Your task to perform on an android device: Clear the cart on target.com. Search for bose quietcomfort 35 on target.com, select the first entry, and add it to the cart. Image 0: 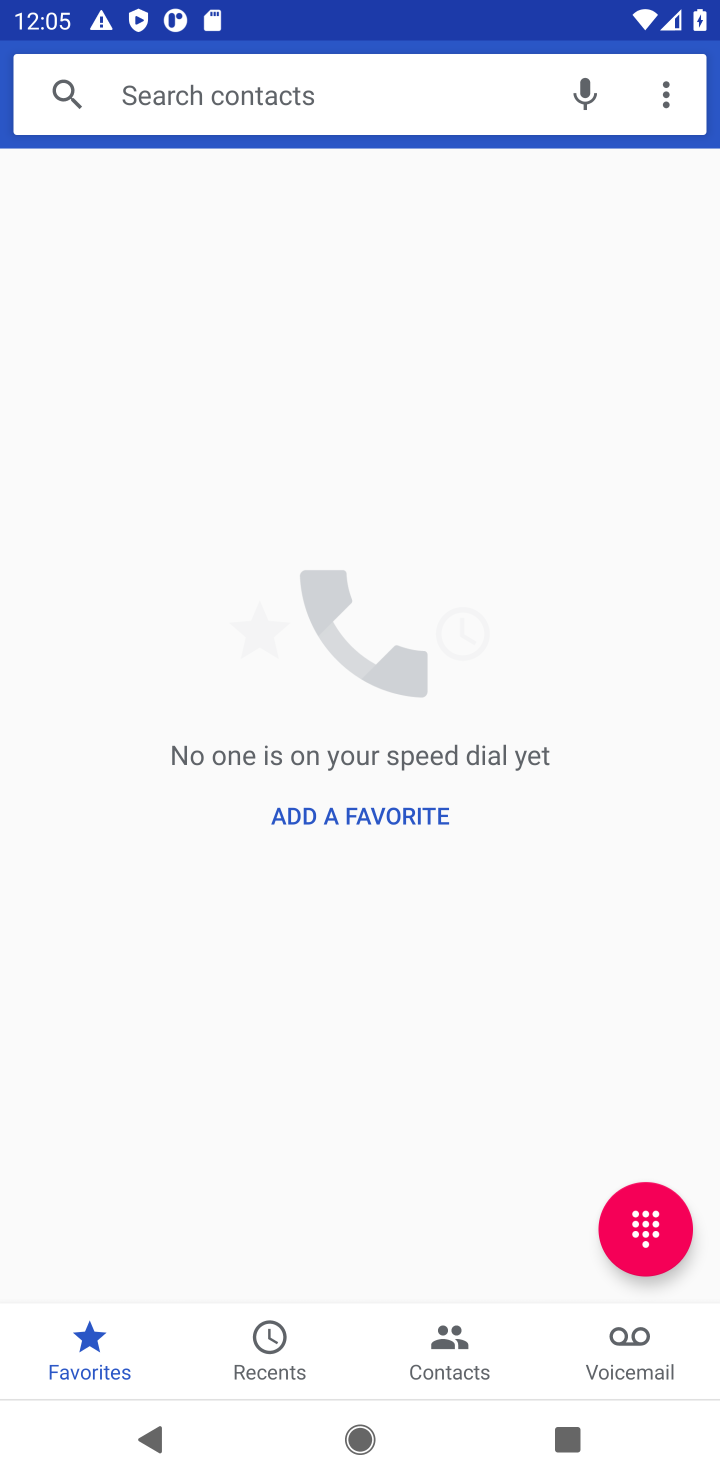
Step 0: press home button
Your task to perform on an android device: Clear the cart on target.com. Search for bose quietcomfort 35 on target.com, select the first entry, and add it to the cart. Image 1: 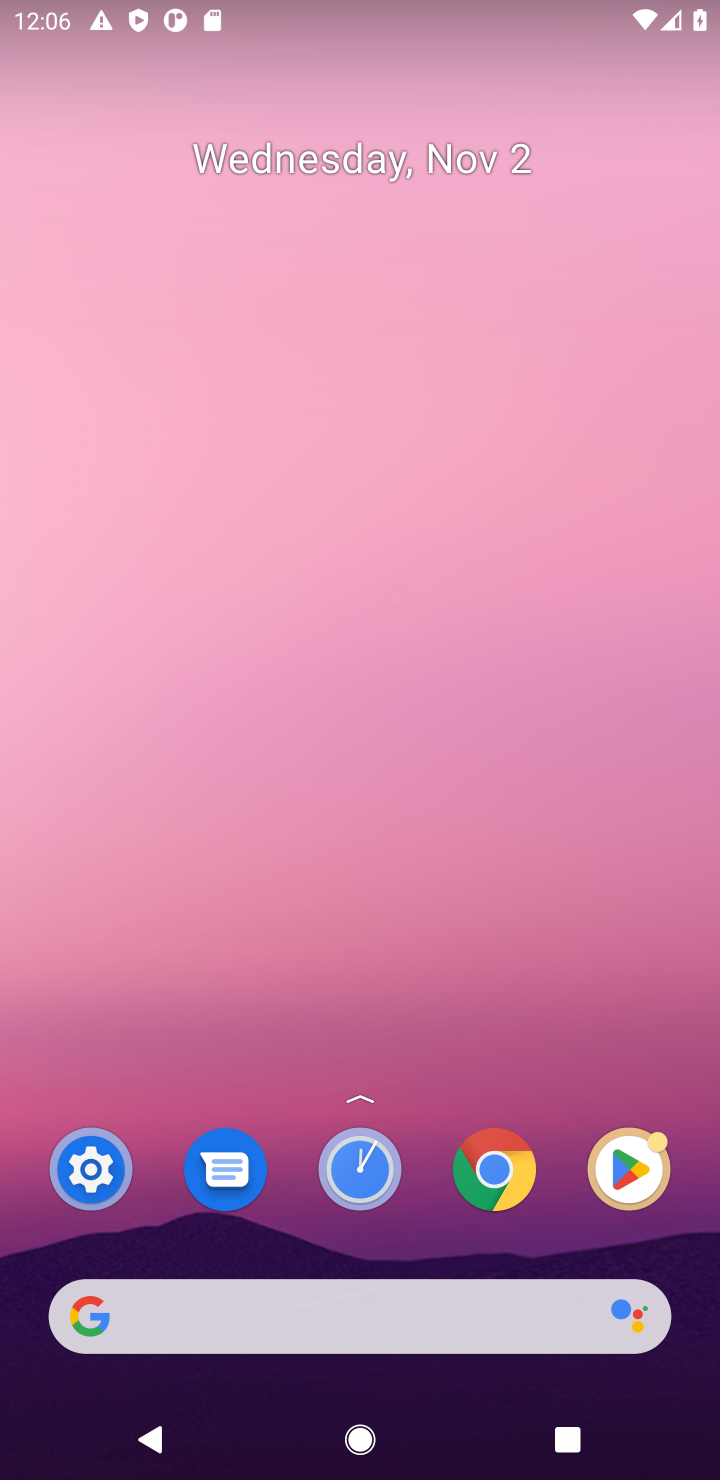
Step 1: click (499, 1177)
Your task to perform on an android device: Clear the cart on target.com. Search for bose quietcomfort 35 on target.com, select the first entry, and add it to the cart. Image 2: 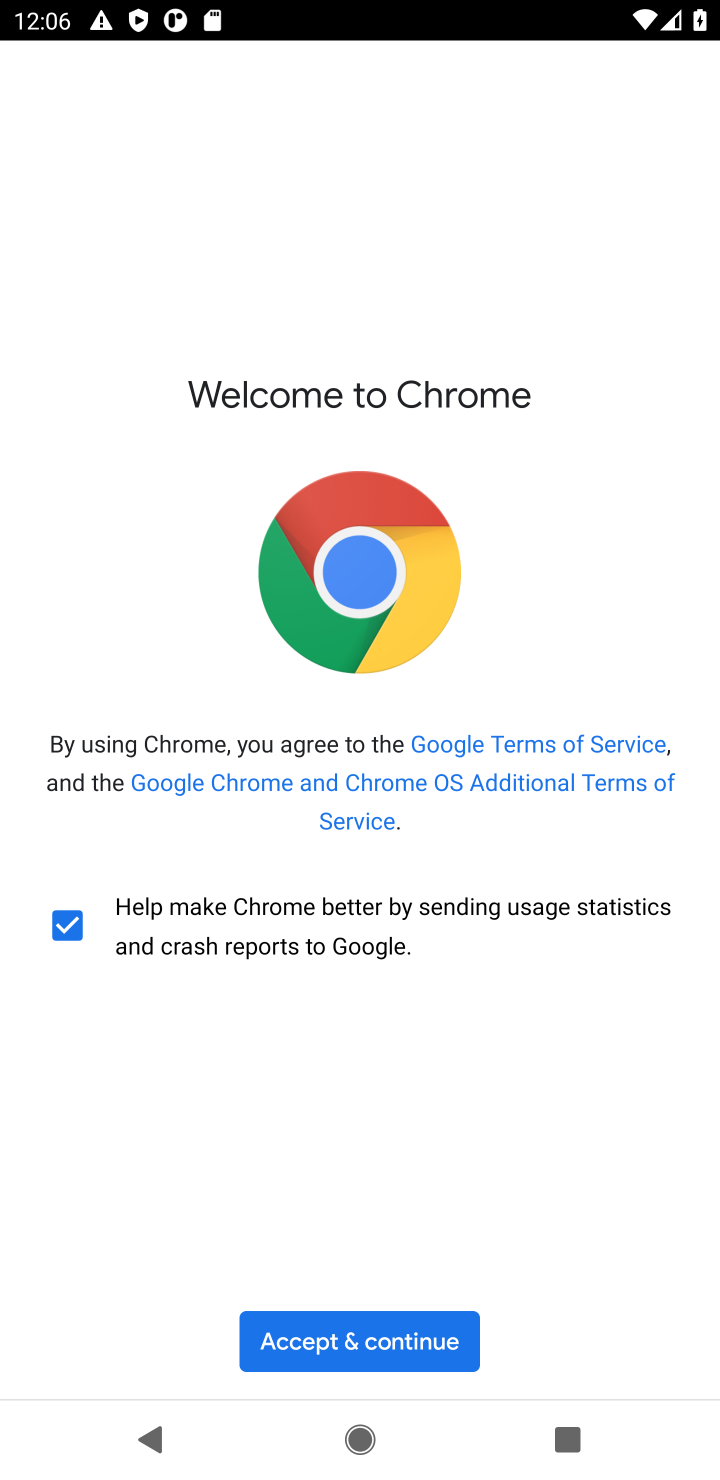
Step 2: click (436, 1365)
Your task to perform on an android device: Clear the cart on target.com. Search for bose quietcomfort 35 on target.com, select the first entry, and add it to the cart. Image 3: 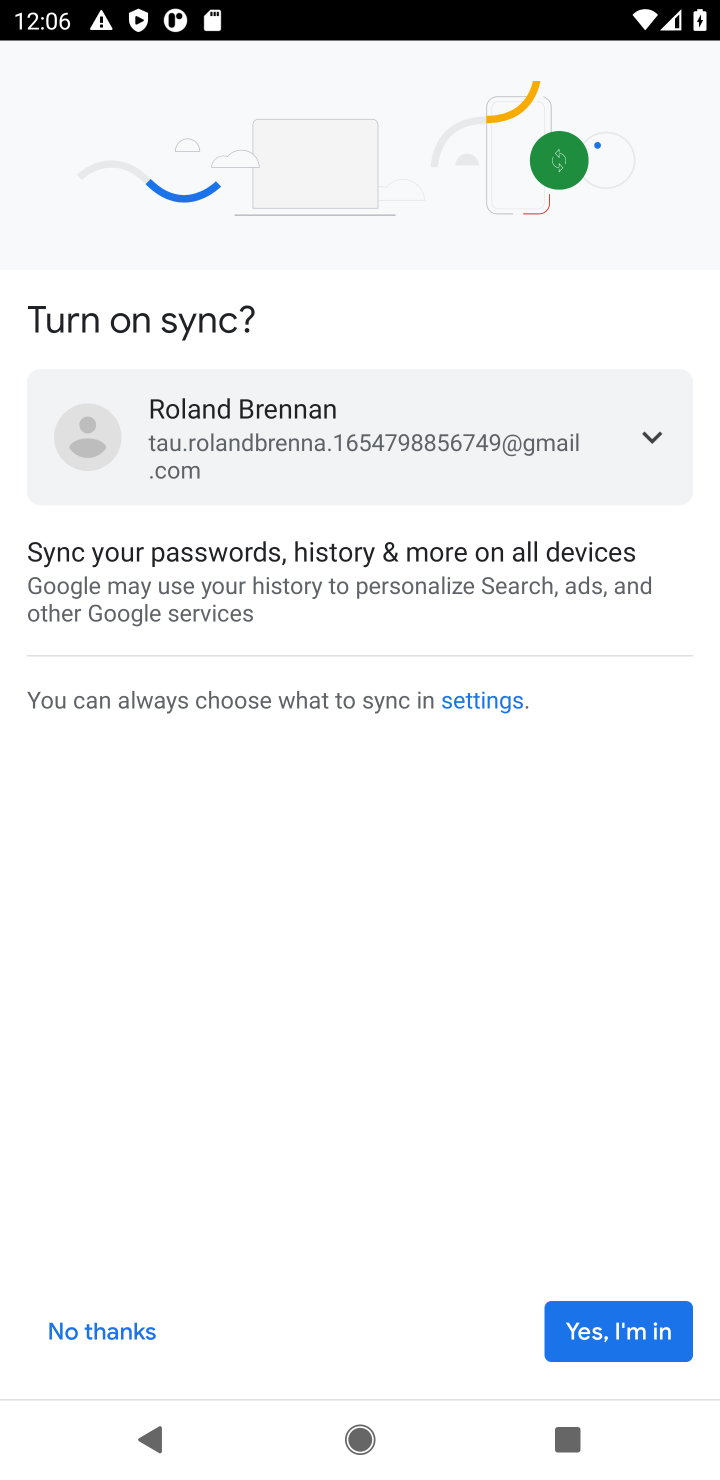
Step 3: click (588, 1325)
Your task to perform on an android device: Clear the cart on target.com. Search for bose quietcomfort 35 on target.com, select the first entry, and add it to the cart. Image 4: 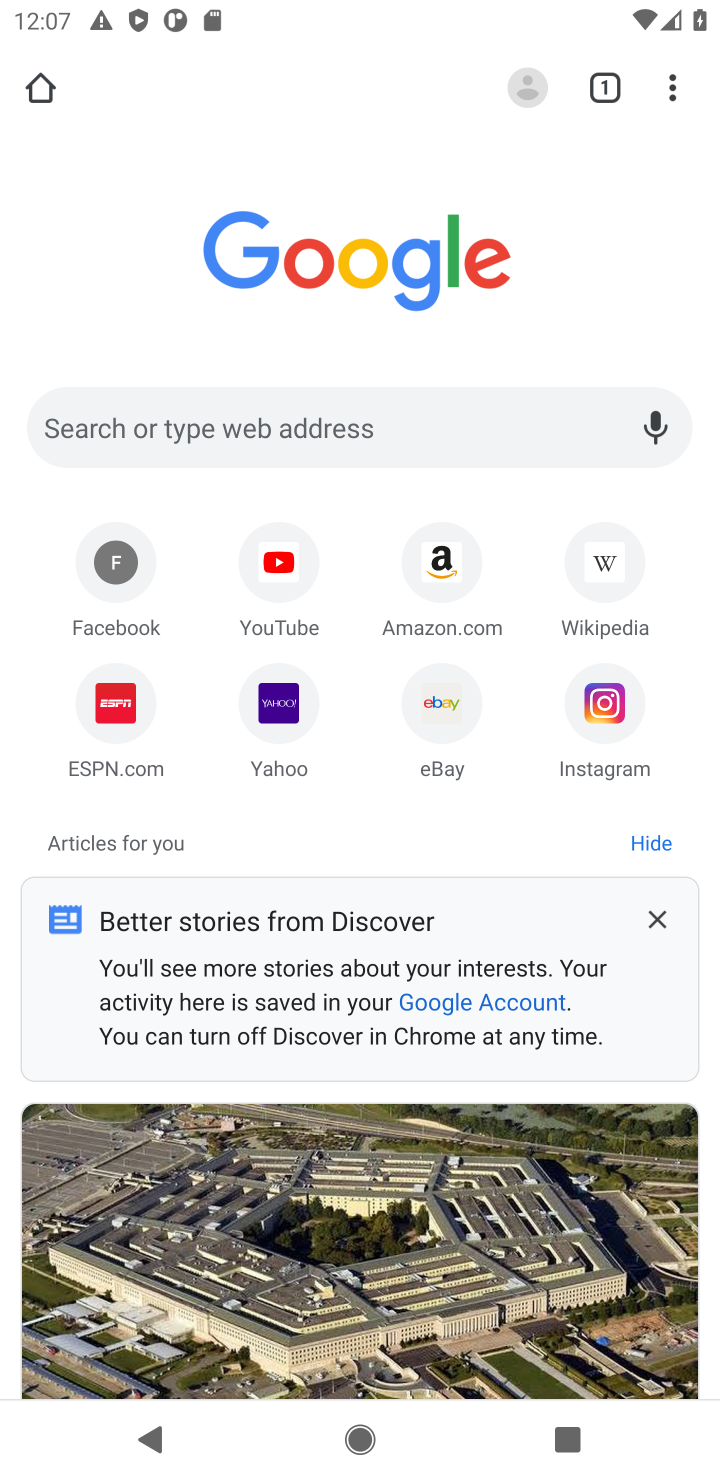
Step 4: click (338, 424)
Your task to perform on an android device: Clear the cart on target.com. Search for bose quietcomfort 35 on target.com, select the first entry, and add it to the cart. Image 5: 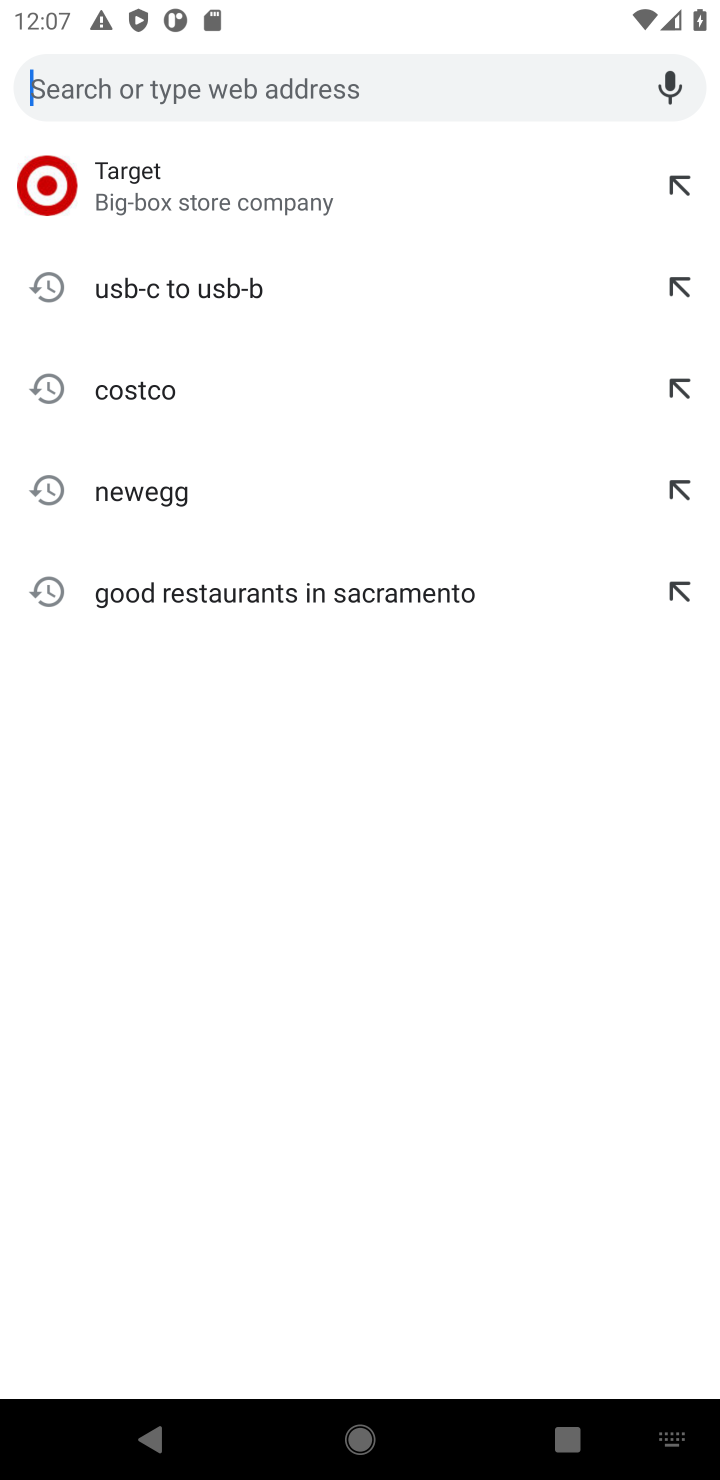
Step 5: type "target.com"
Your task to perform on an android device: Clear the cart on target.com. Search for bose quietcomfort 35 on target.com, select the first entry, and add it to the cart. Image 6: 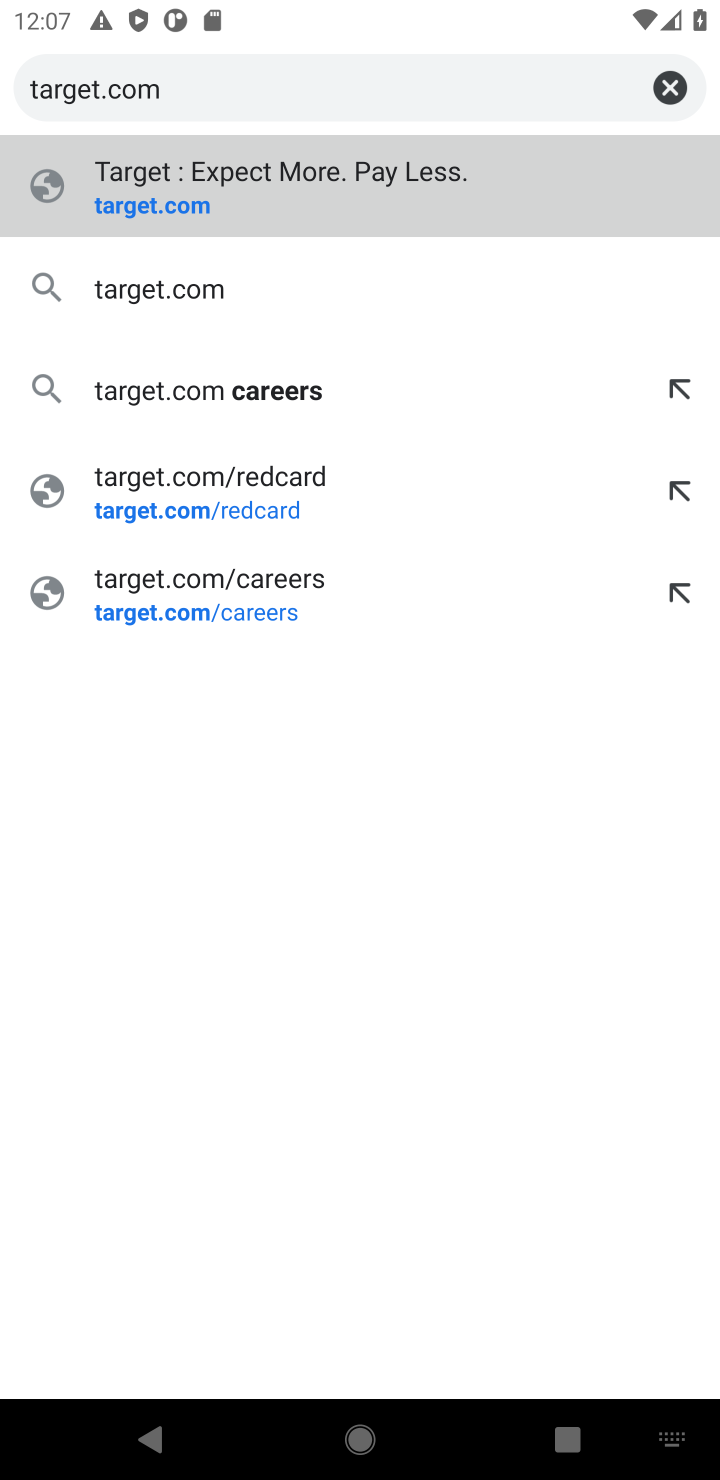
Step 6: type ""
Your task to perform on an android device: Clear the cart on target.com. Search for bose quietcomfort 35 on target.com, select the first entry, and add it to the cart. Image 7: 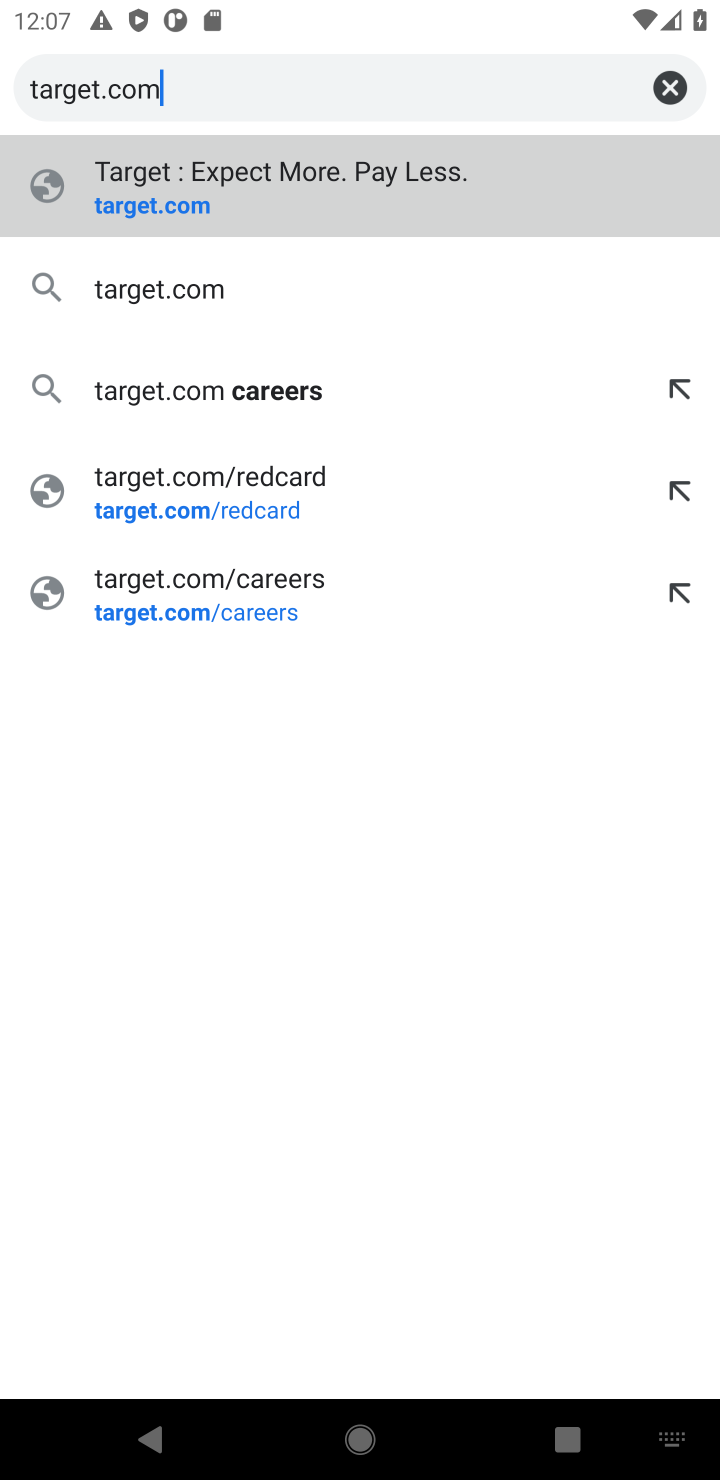
Step 7: click (200, 289)
Your task to perform on an android device: Clear the cart on target.com. Search for bose quietcomfort 35 on target.com, select the first entry, and add it to the cart. Image 8: 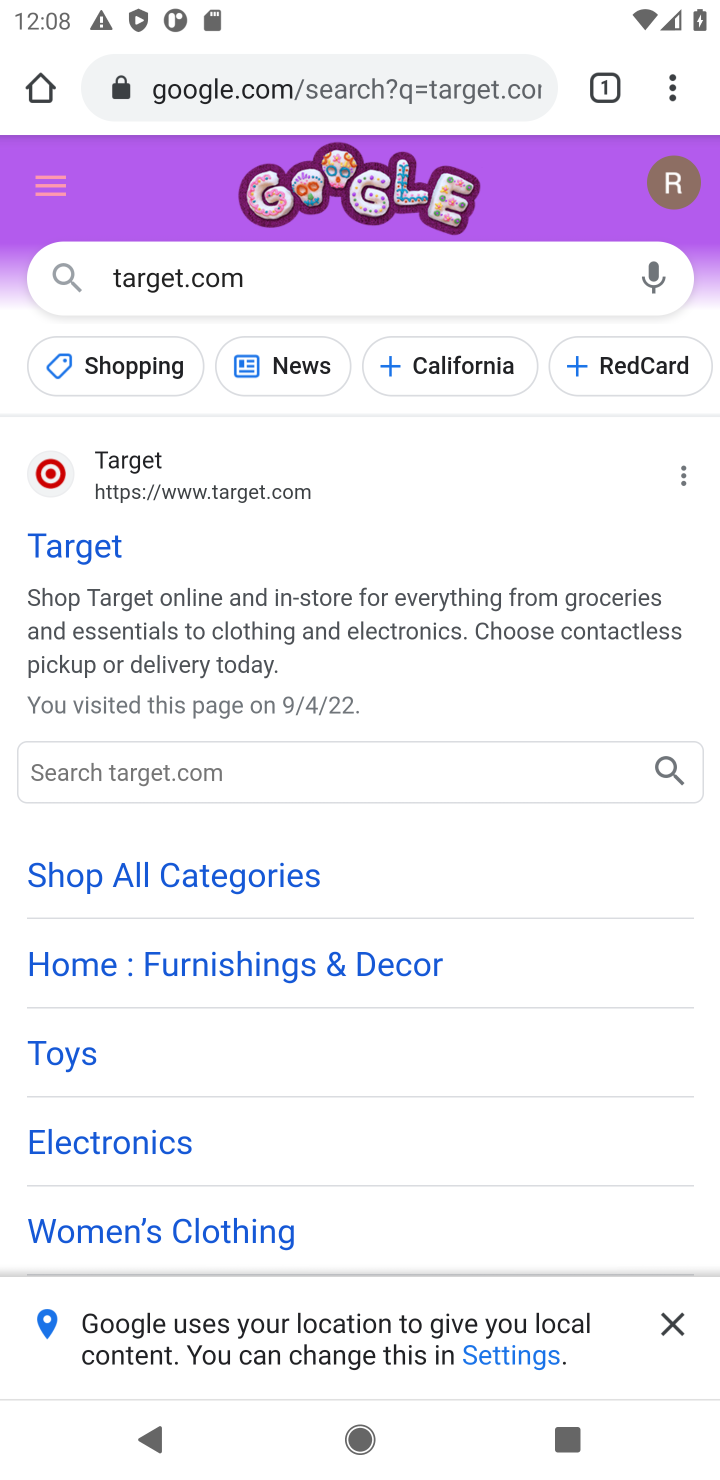
Step 8: click (87, 542)
Your task to perform on an android device: Clear the cart on target.com. Search for bose quietcomfort 35 on target.com, select the first entry, and add it to the cart. Image 9: 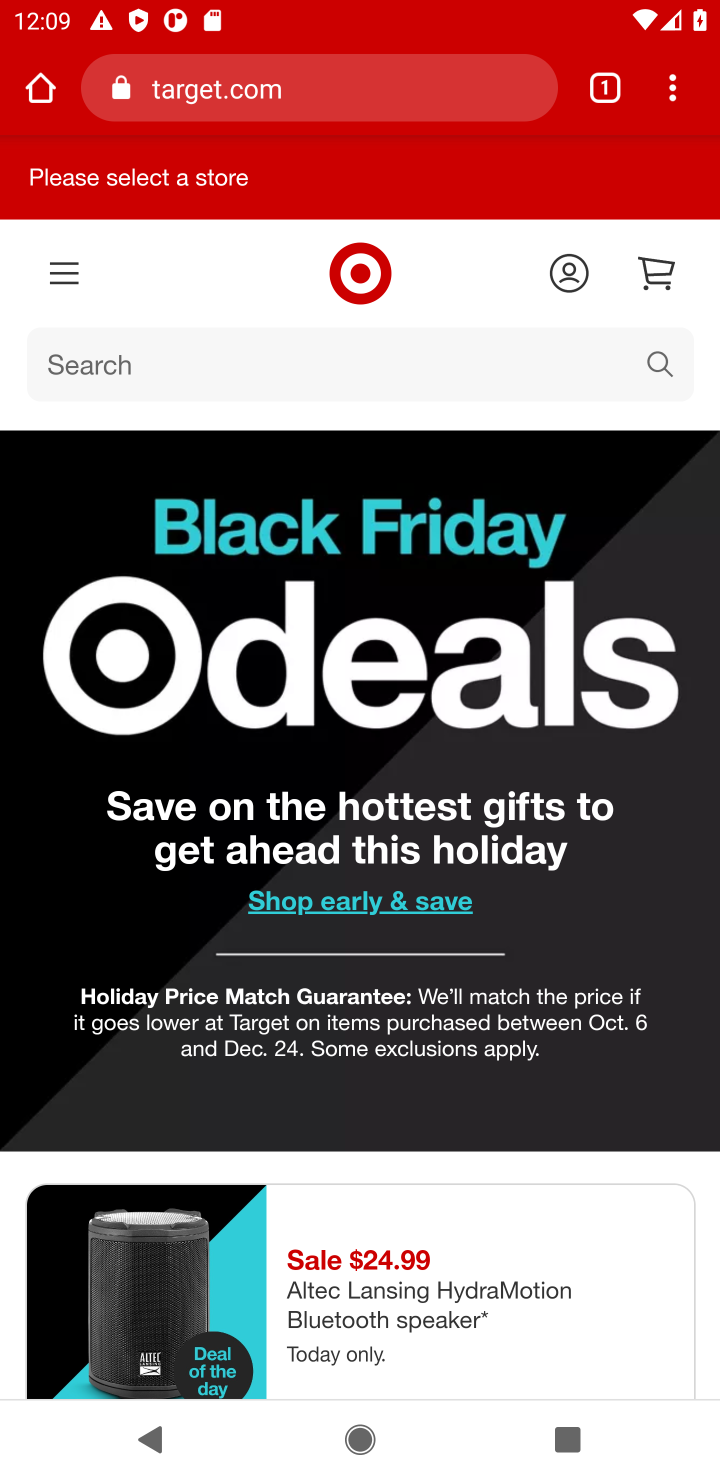
Step 9: click (284, 369)
Your task to perform on an android device: Clear the cart on target.com. Search for bose quietcomfort 35 on target.com, select the first entry, and add it to the cart. Image 10: 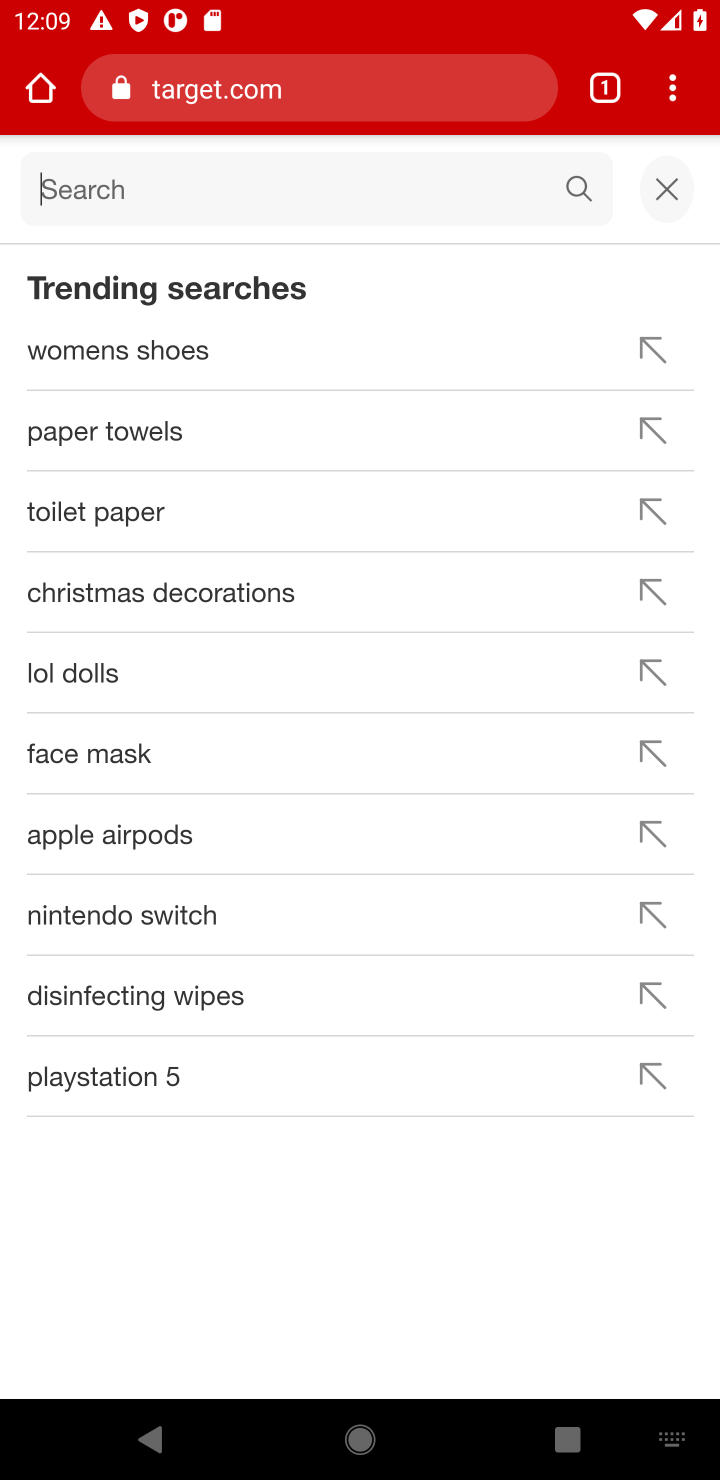
Step 10: type "bose quietcomfort 35 "
Your task to perform on an android device: Clear the cart on target.com. Search for bose quietcomfort 35 on target.com, select the first entry, and add it to the cart. Image 11: 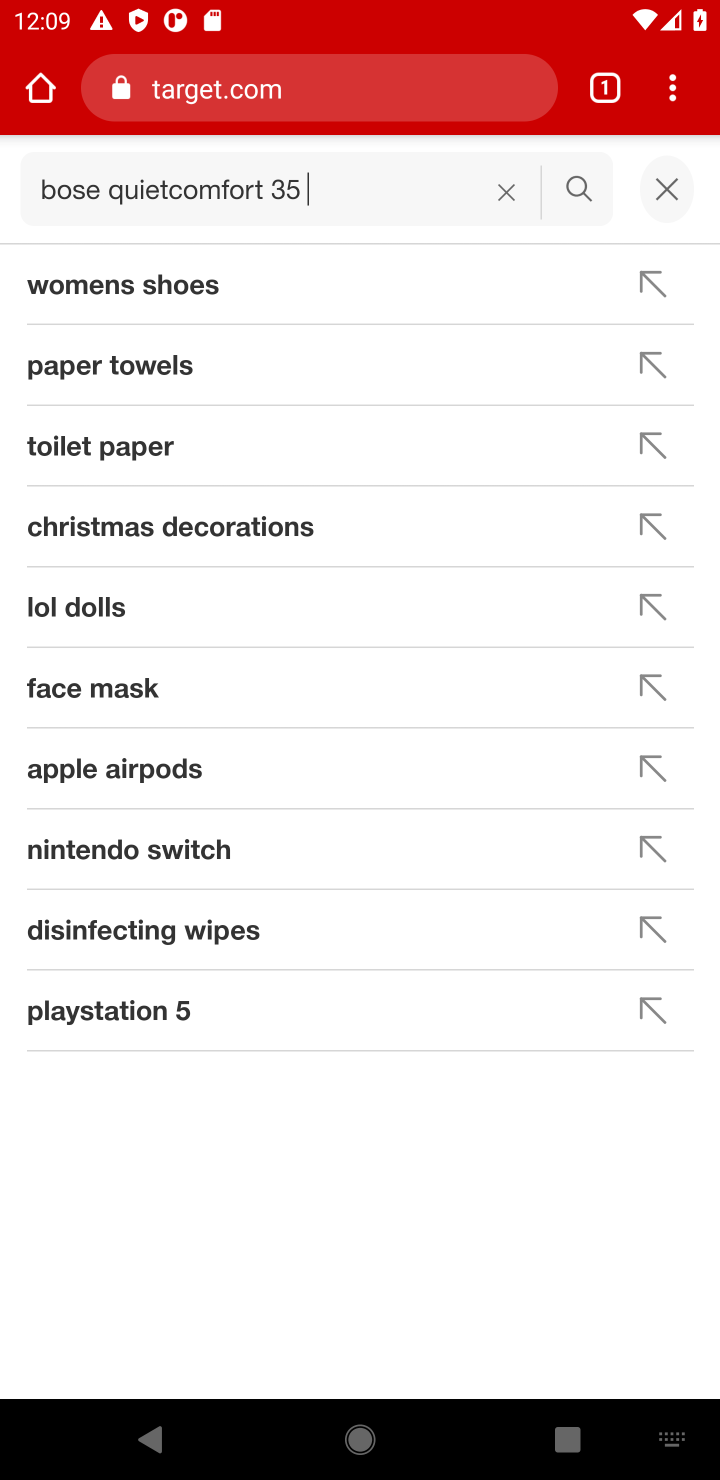
Step 11: type ""
Your task to perform on an android device: Clear the cart on target.com. Search for bose quietcomfort 35 on target.com, select the first entry, and add it to the cart. Image 12: 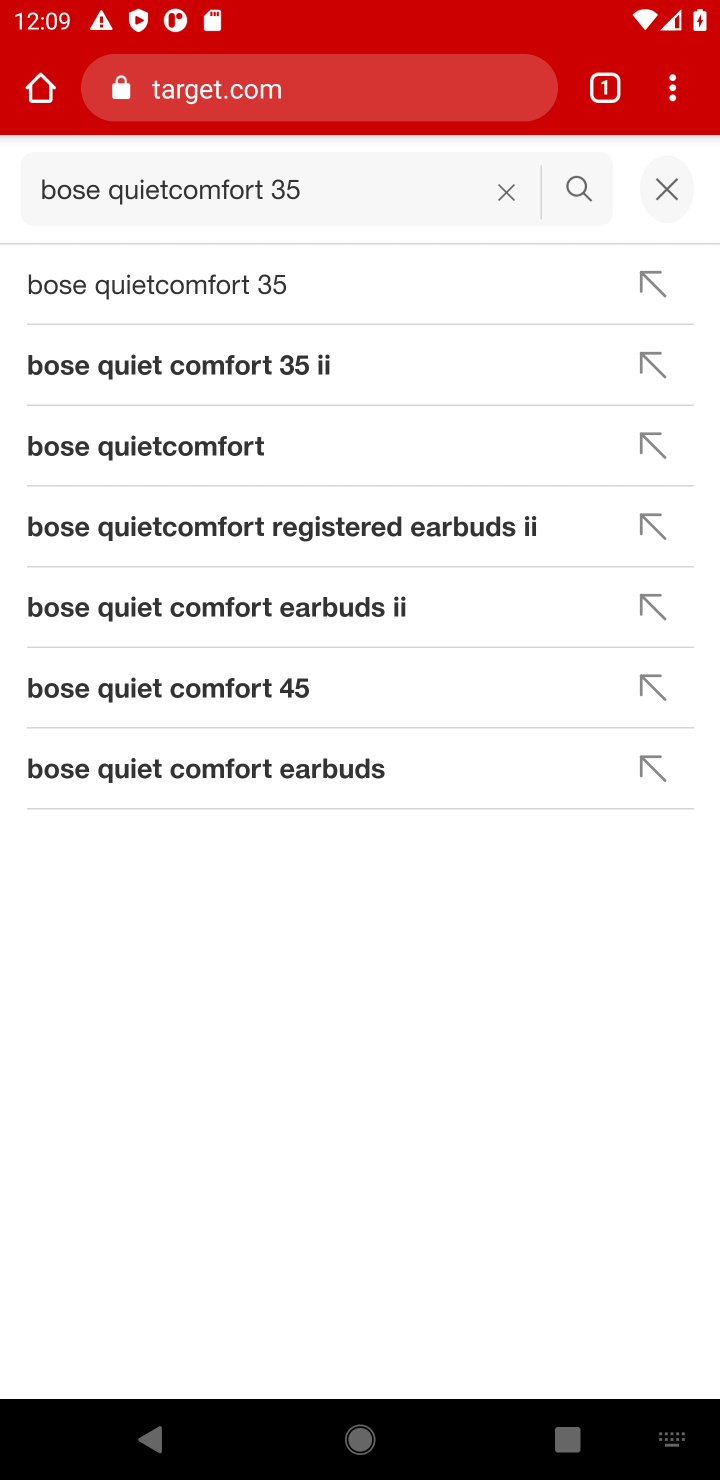
Step 12: click (218, 284)
Your task to perform on an android device: Clear the cart on target.com. Search for bose quietcomfort 35 on target.com, select the first entry, and add it to the cart. Image 13: 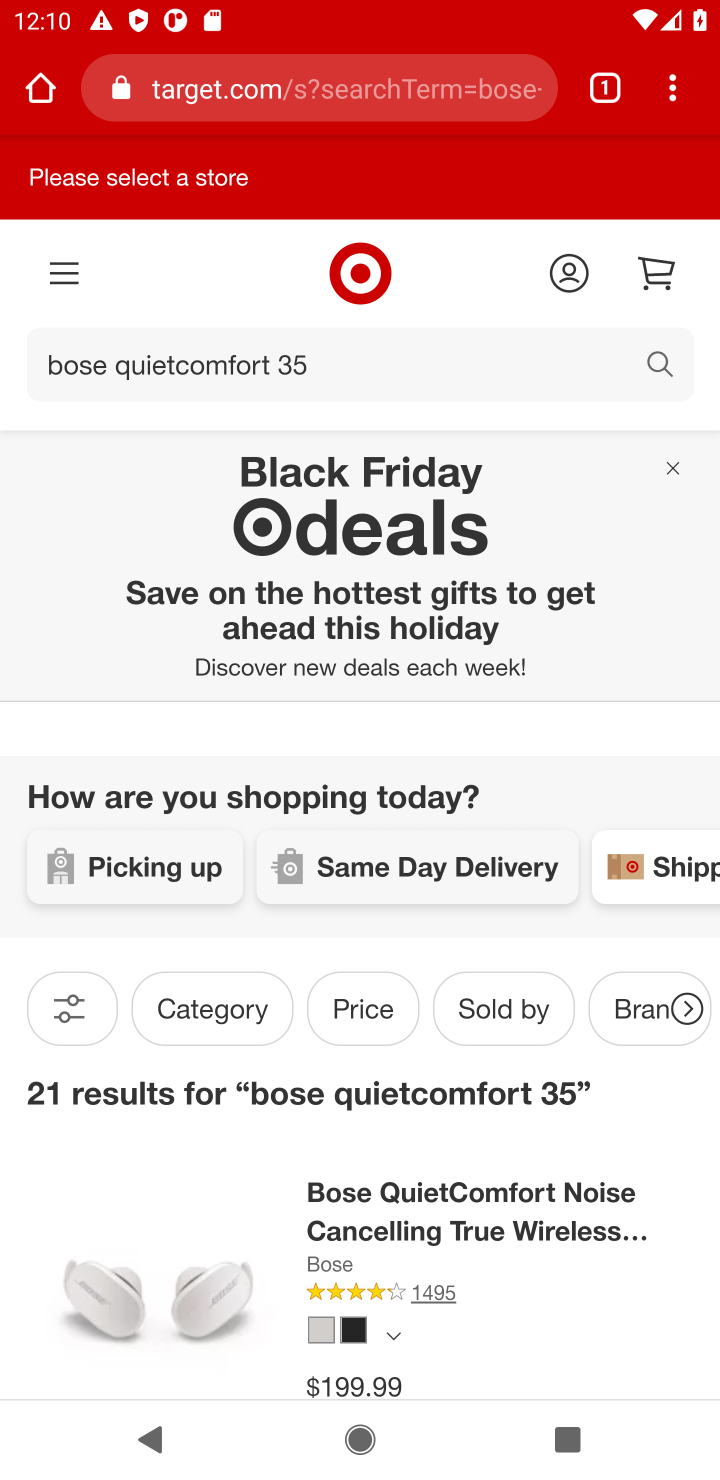
Step 13: click (353, 1205)
Your task to perform on an android device: Clear the cart on target.com. Search for bose quietcomfort 35 on target.com, select the first entry, and add it to the cart. Image 14: 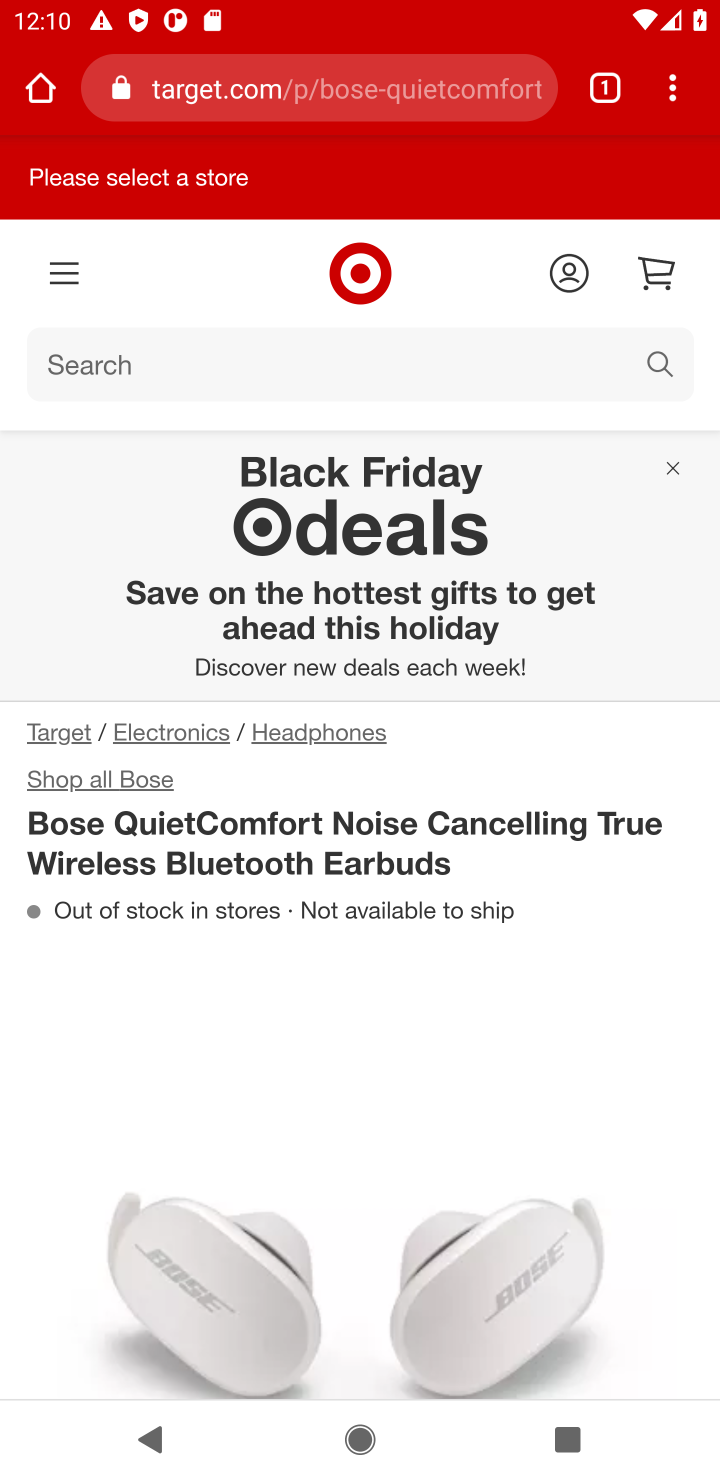
Step 14: drag from (232, 1317) to (172, 726)
Your task to perform on an android device: Clear the cart on target.com. Search for bose quietcomfort 35 on target.com, select the first entry, and add it to the cart. Image 15: 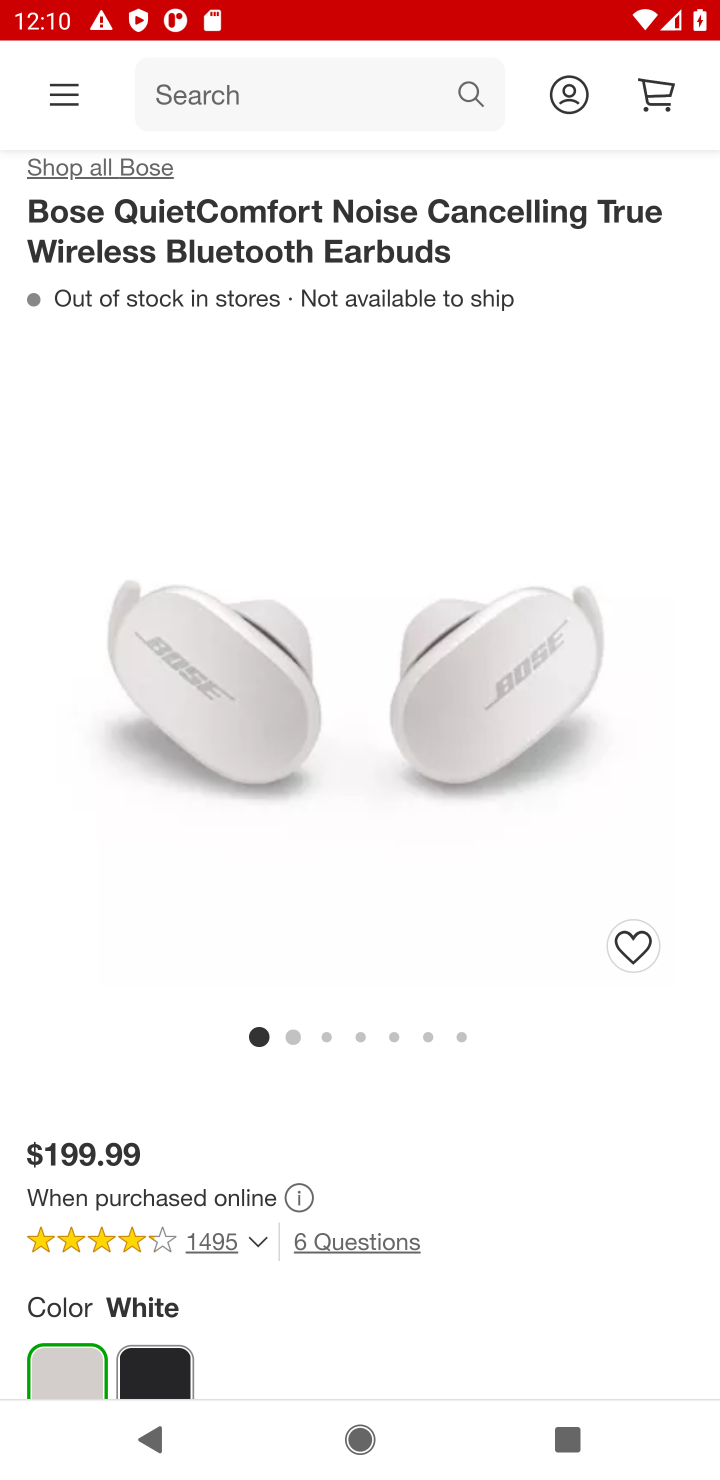
Step 15: drag from (281, 1192) to (233, 722)
Your task to perform on an android device: Clear the cart on target.com. Search for bose quietcomfort 35 on target.com, select the first entry, and add it to the cart. Image 16: 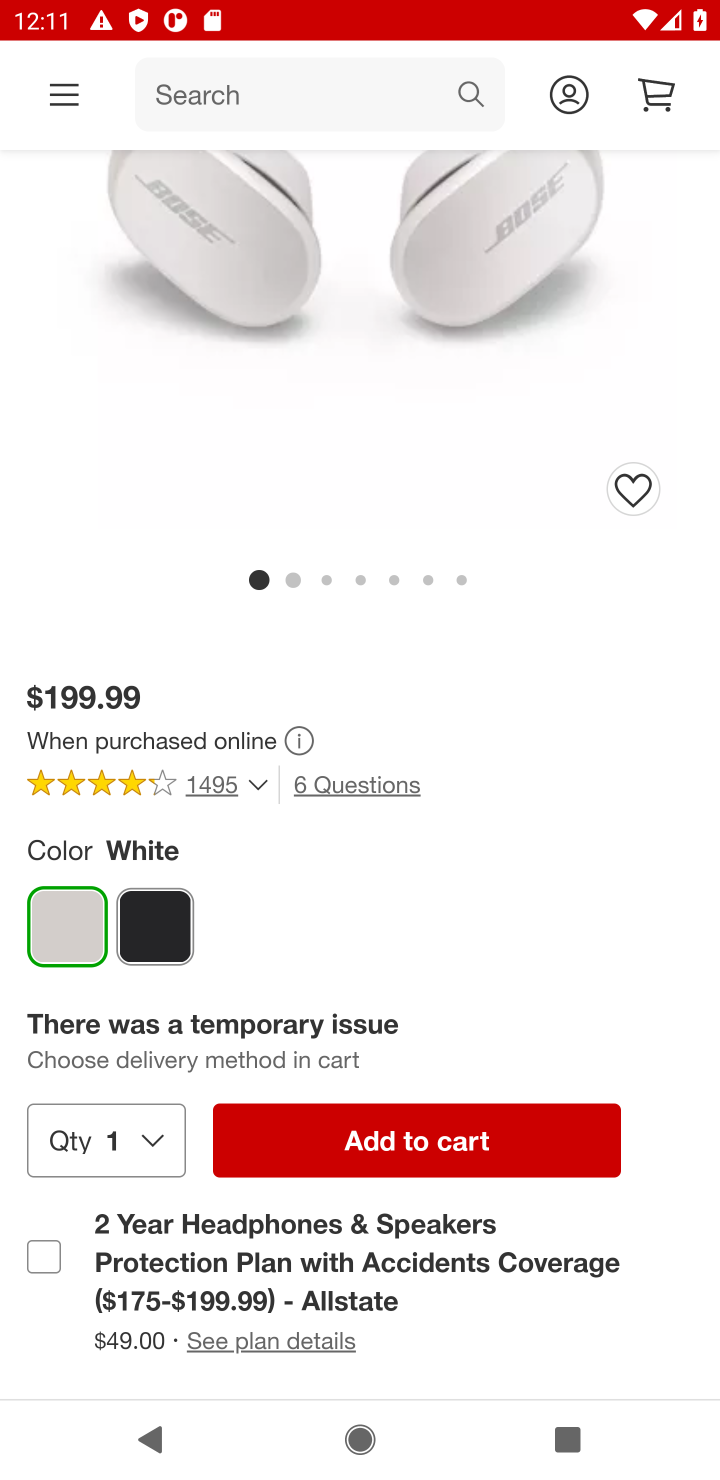
Step 16: click (464, 1154)
Your task to perform on an android device: Clear the cart on target.com. Search for bose quietcomfort 35 on target.com, select the first entry, and add it to the cart. Image 17: 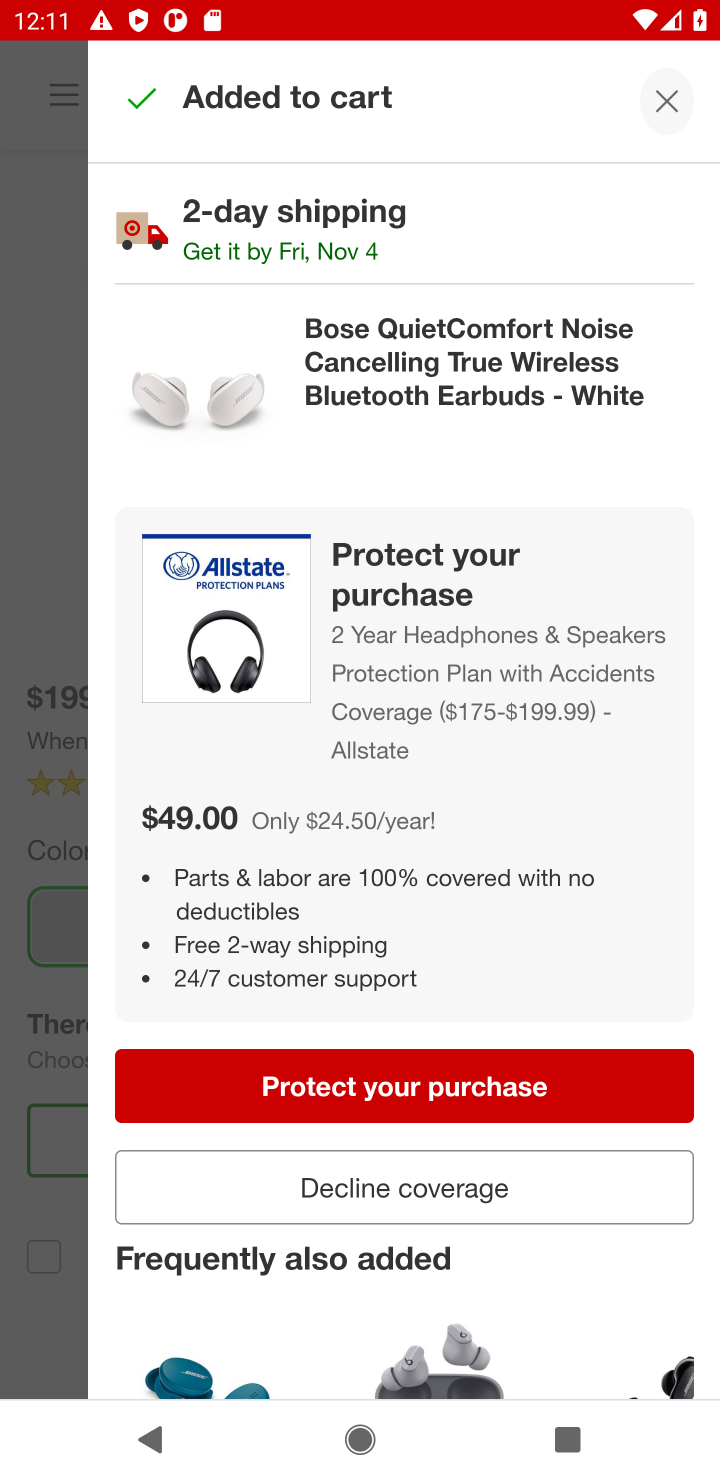
Step 17: task complete